Your task to perform on an android device: turn off notifications in google photos Image 0: 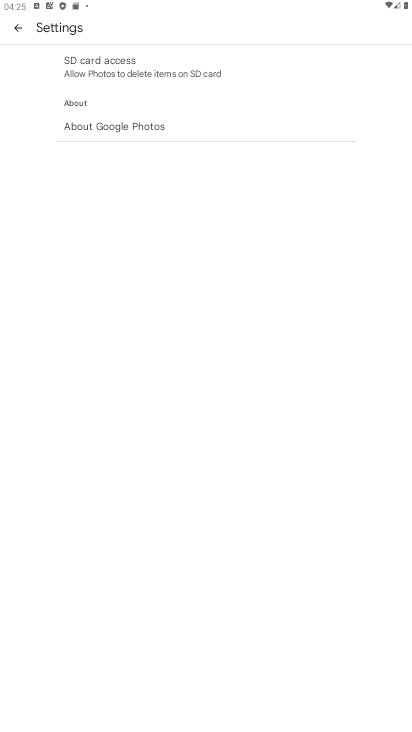
Step 0: press home button
Your task to perform on an android device: turn off notifications in google photos Image 1: 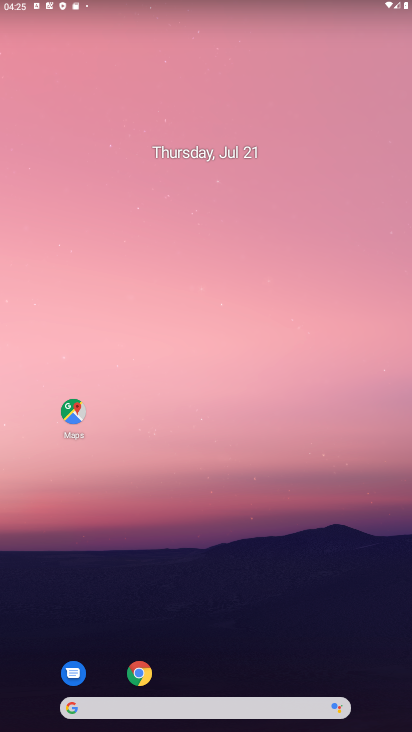
Step 1: drag from (391, 663) to (346, 356)
Your task to perform on an android device: turn off notifications in google photos Image 2: 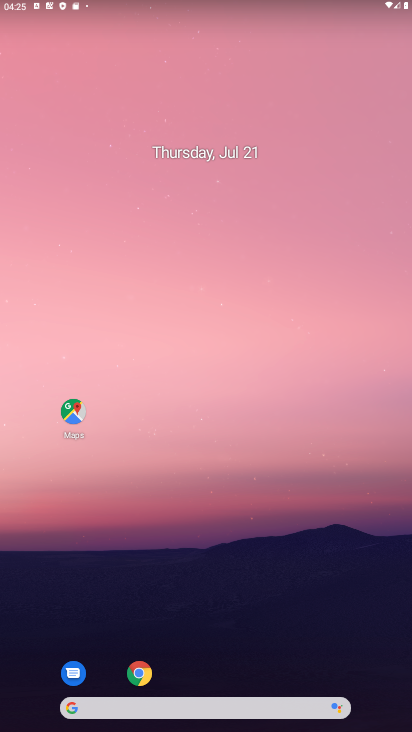
Step 2: drag from (380, 685) to (312, 137)
Your task to perform on an android device: turn off notifications in google photos Image 3: 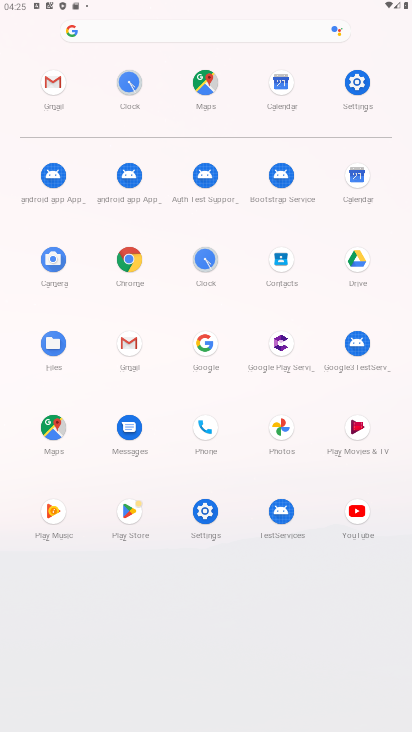
Step 3: click (279, 427)
Your task to perform on an android device: turn off notifications in google photos Image 4: 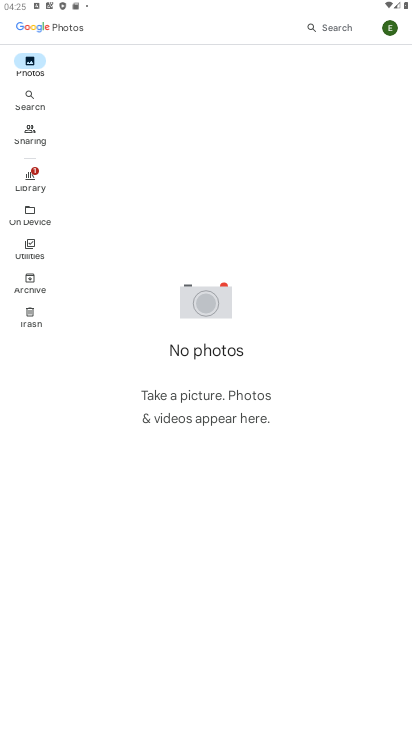
Step 4: click (392, 29)
Your task to perform on an android device: turn off notifications in google photos Image 5: 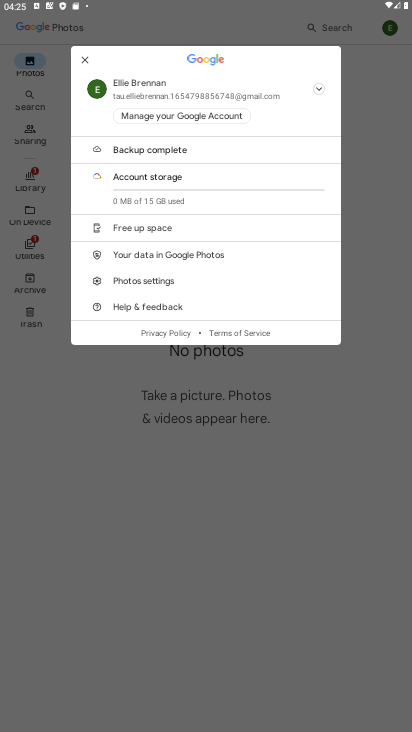
Step 5: click (136, 281)
Your task to perform on an android device: turn off notifications in google photos Image 6: 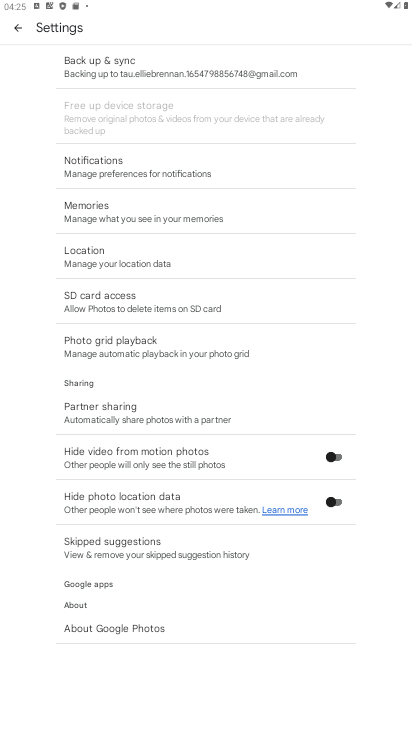
Step 6: click (102, 159)
Your task to perform on an android device: turn off notifications in google photos Image 7: 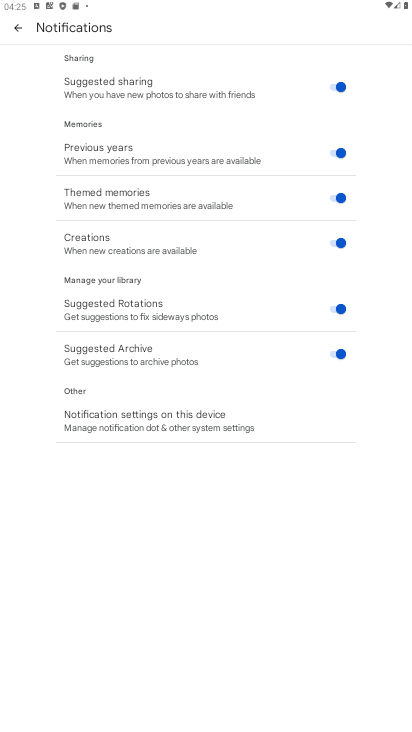
Step 7: click (151, 415)
Your task to perform on an android device: turn off notifications in google photos Image 8: 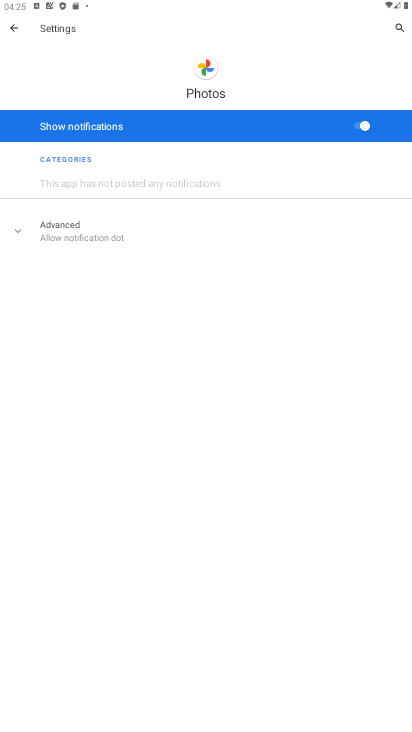
Step 8: click (355, 126)
Your task to perform on an android device: turn off notifications in google photos Image 9: 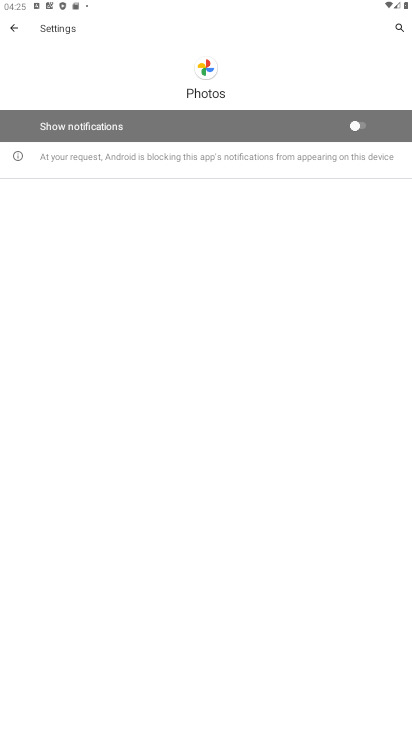
Step 9: task complete